Your task to perform on an android device: Open settings on Google Maps Image 0: 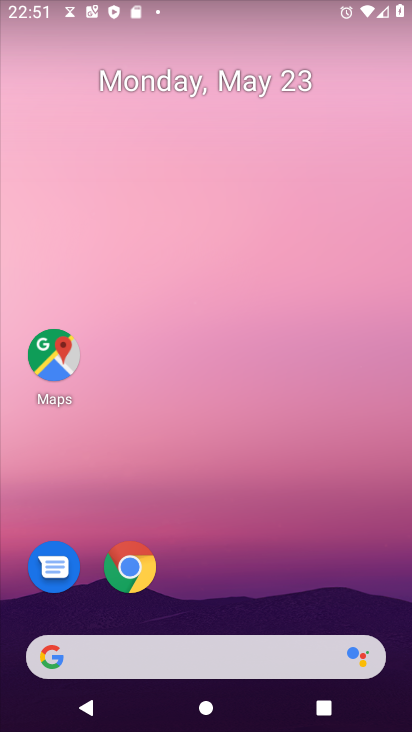
Step 0: click (47, 366)
Your task to perform on an android device: Open settings on Google Maps Image 1: 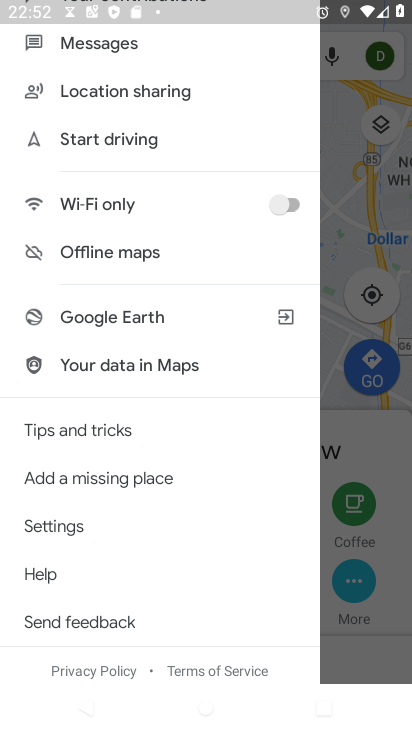
Step 1: task complete